Your task to perform on an android device: remove spam from my inbox in the gmail app Image 0: 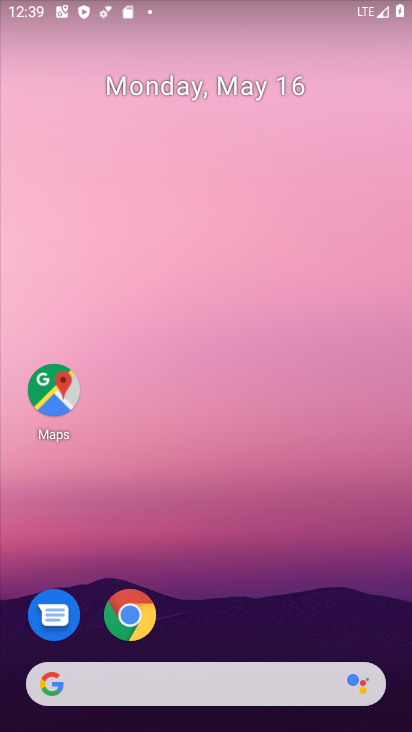
Step 0: drag from (310, 595) to (288, 110)
Your task to perform on an android device: remove spam from my inbox in the gmail app Image 1: 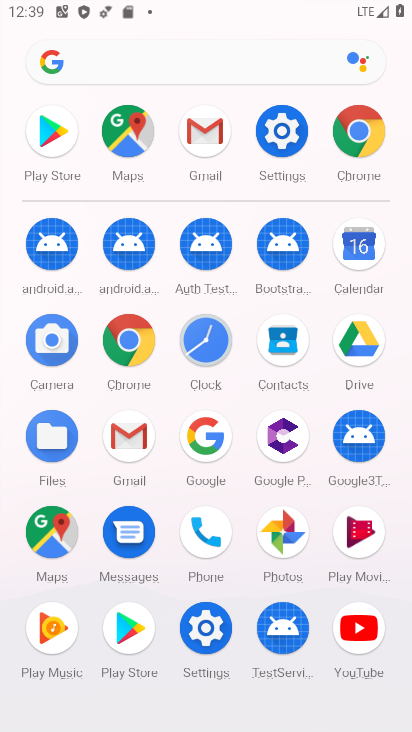
Step 1: click (207, 141)
Your task to perform on an android device: remove spam from my inbox in the gmail app Image 2: 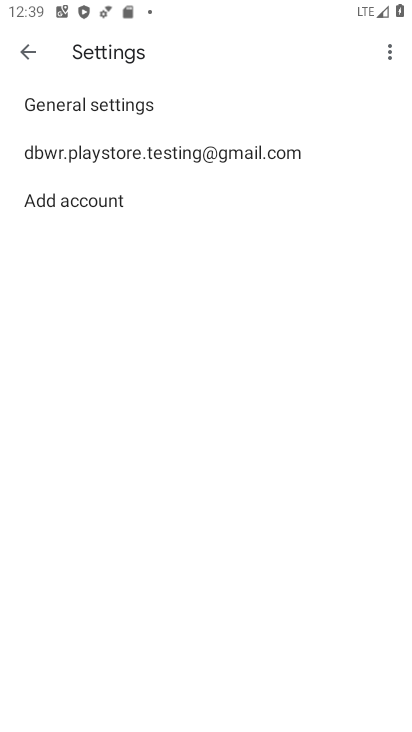
Step 2: click (196, 155)
Your task to perform on an android device: remove spam from my inbox in the gmail app Image 3: 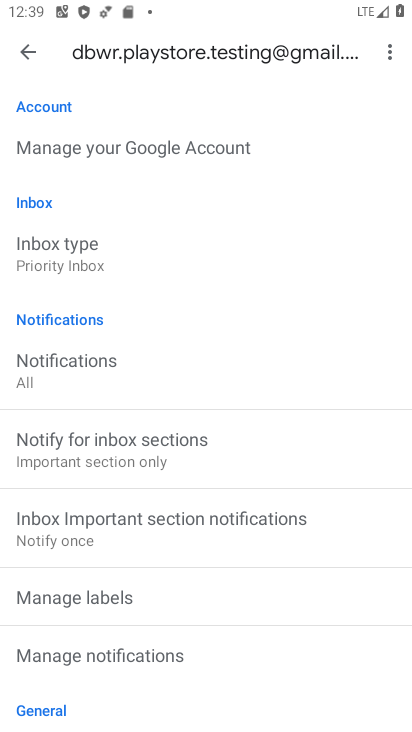
Step 3: click (31, 52)
Your task to perform on an android device: remove spam from my inbox in the gmail app Image 4: 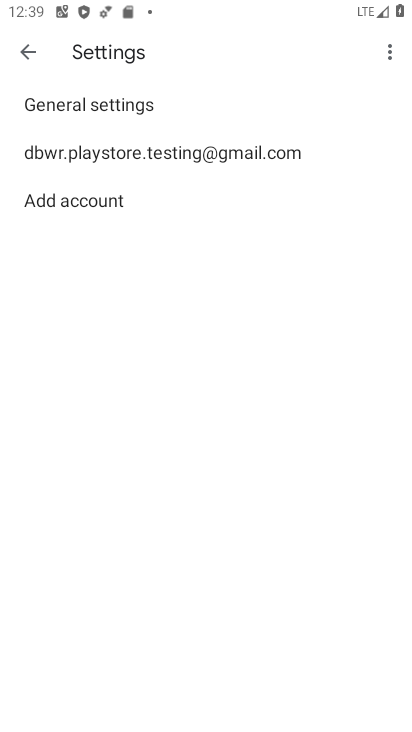
Step 4: click (30, 52)
Your task to perform on an android device: remove spam from my inbox in the gmail app Image 5: 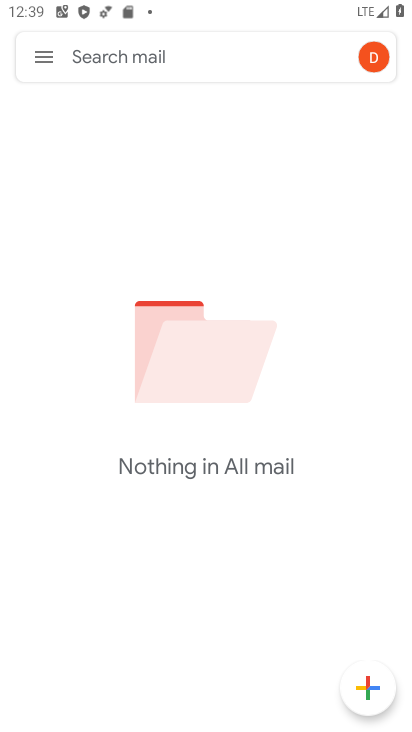
Step 5: click (30, 52)
Your task to perform on an android device: remove spam from my inbox in the gmail app Image 6: 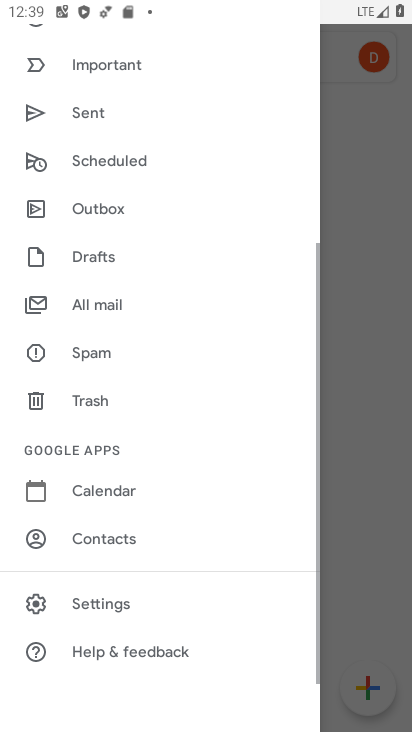
Step 6: drag from (157, 580) to (174, 421)
Your task to perform on an android device: remove spam from my inbox in the gmail app Image 7: 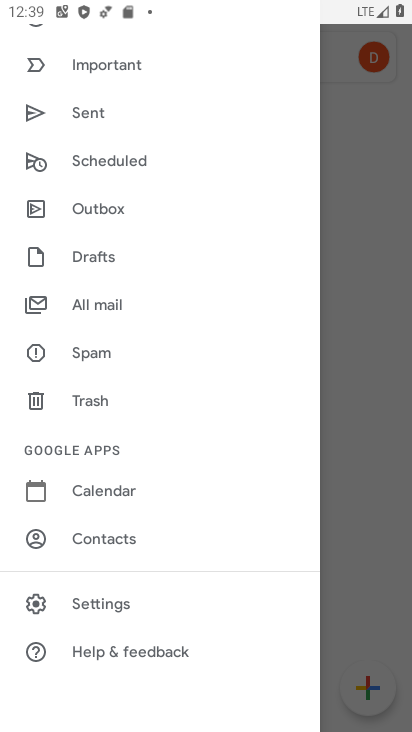
Step 7: click (137, 357)
Your task to perform on an android device: remove spam from my inbox in the gmail app Image 8: 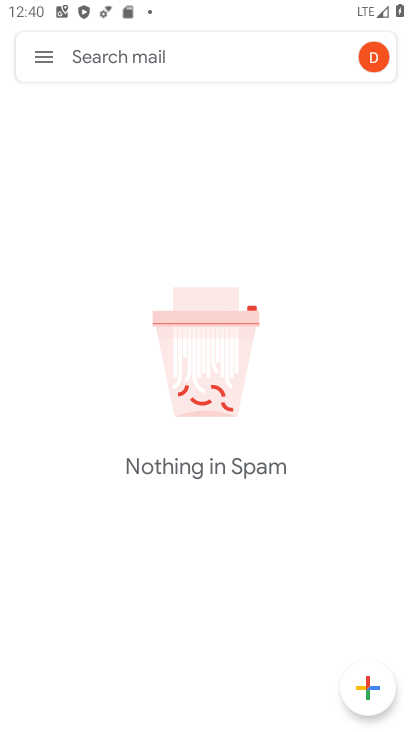
Step 8: task complete